Your task to perform on an android device: turn off data saver in the chrome app Image 0: 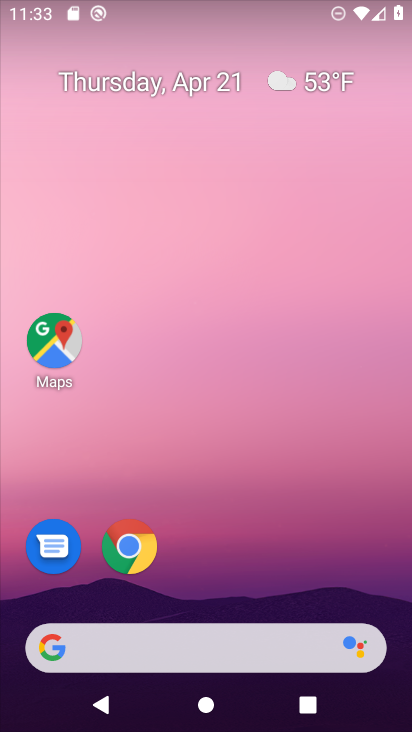
Step 0: click (130, 543)
Your task to perform on an android device: turn off data saver in the chrome app Image 1: 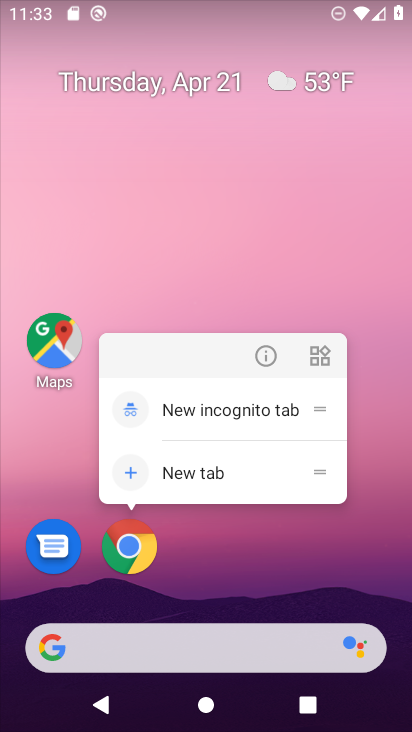
Step 1: click (130, 549)
Your task to perform on an android device: turn off data saver in the chrome app Image 2: 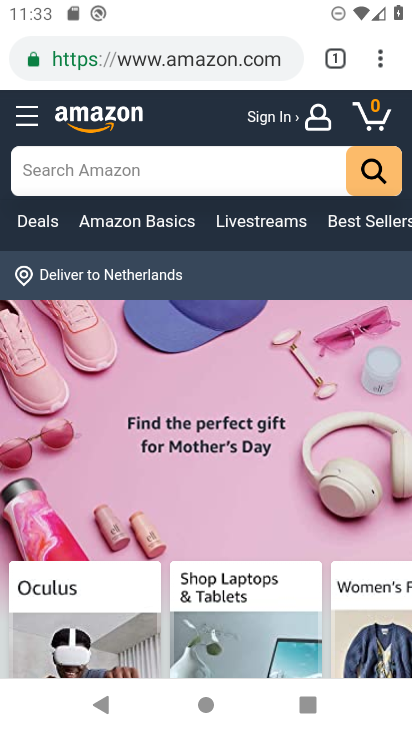
Step 2: click (381, 53)
Your task to perform on an android device: turn off data saver in the chrome app Image 3: 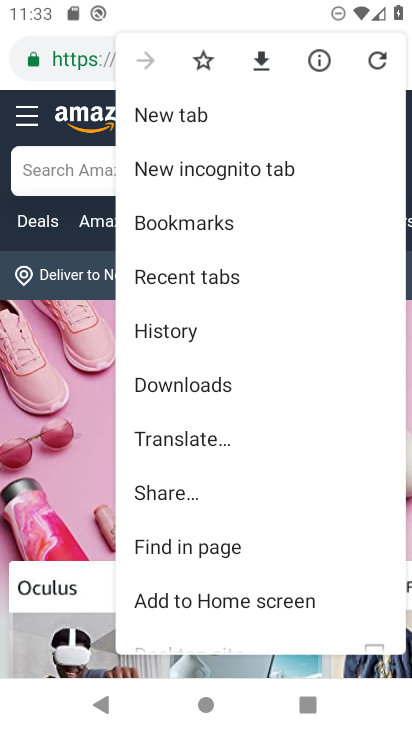
Step 3: drag from (188, 576) to (190, 275)
Your task to perform on an android device: turn off data saver in the chrome app Image 4: 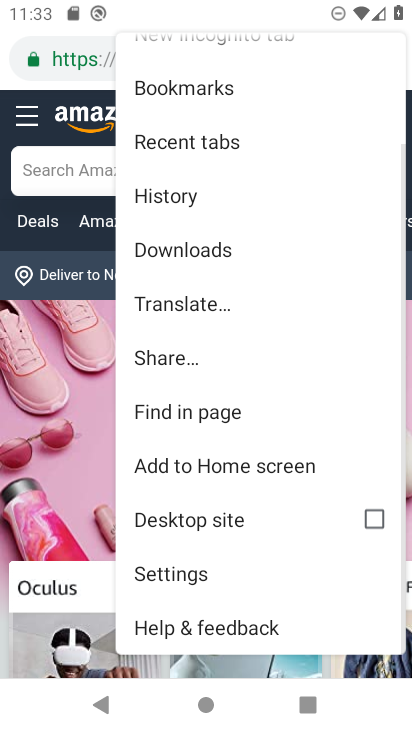
Step 4: click (183, 573)
Your task to perform on an android device: turn off data saver in the chrome app Image 5: 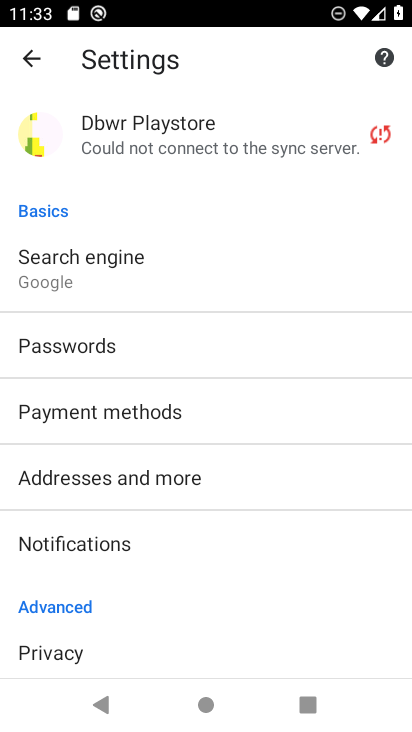
Step 5: drag from (124, 637) to (168, 222)
Your task to perform on an android device: turn off data saver in the chrome app Image 6: 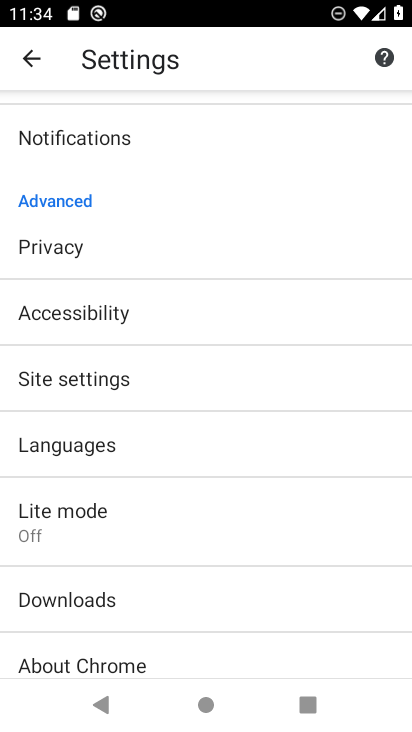
Step 6: click (52, 520)
Your task to perform on an android device: turn off data saver in the chrome app Image 7: 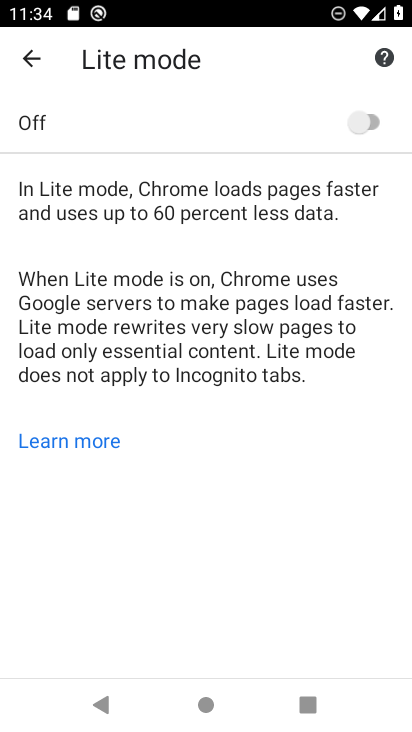
Step 7: task complete